Your task to perform on an android device: Open the stopwatch Image 0: 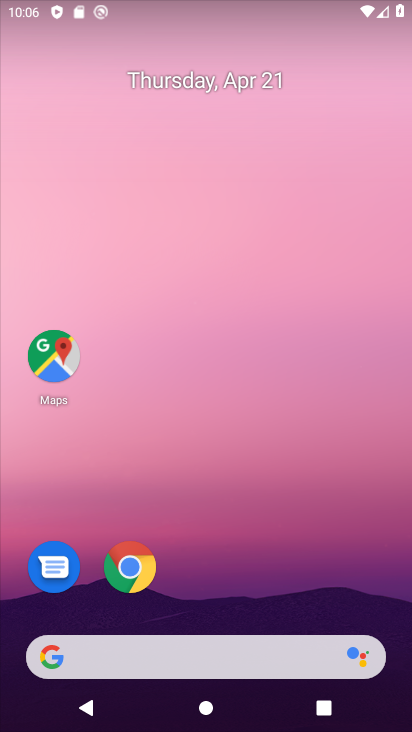
Step 0: drag from (218, 584) to (241, 159)
Your task to perform on an android device: Open the stopwatch Image 1: 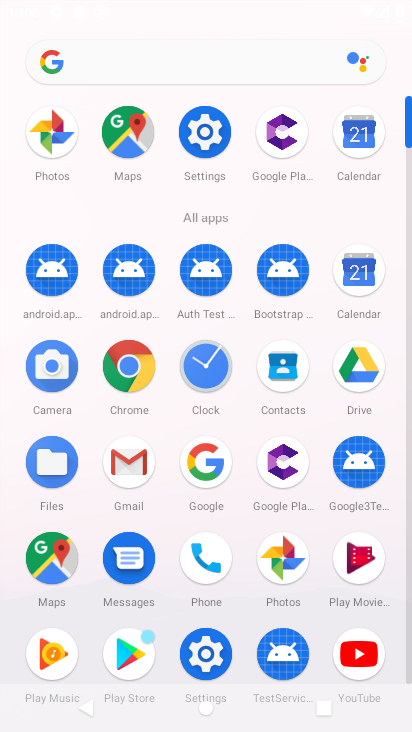
Step 1: click (204, 369)
Your task to perform on an android device: Open the stopwatch Image 2: 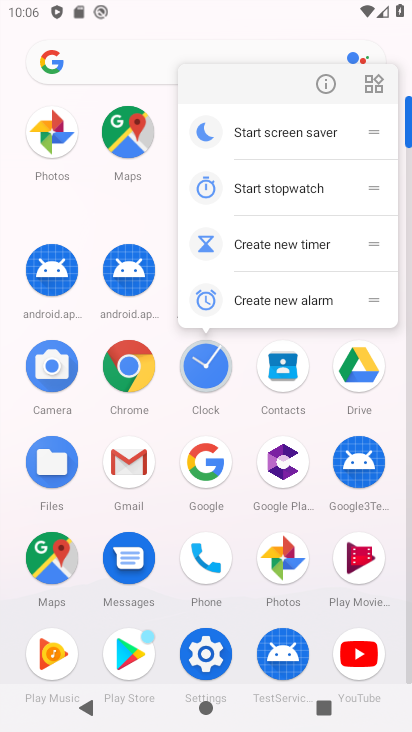
Step 2: click (204, 369)
Your task to perform on an android device: Open the stopwatch Image 3: 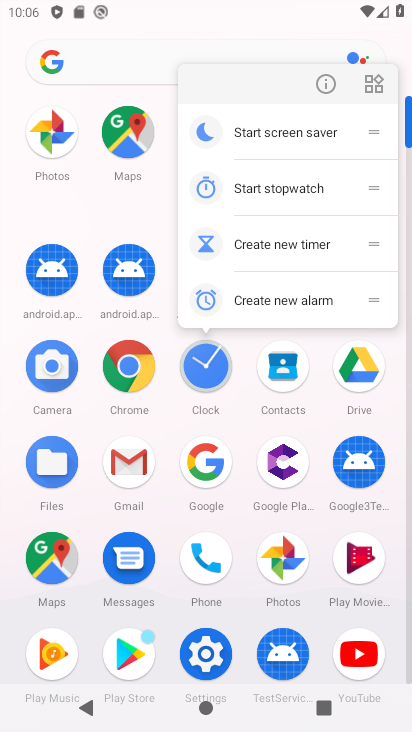
Step 3: click (204, 369)
Your task to perform on an android device: Open the stopwatch Image 4: 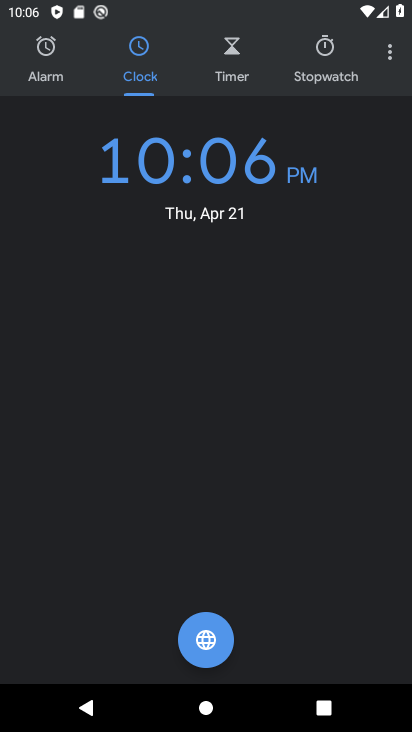
Step 4: click (337, 70)
Your task to perform on an android device: Open the stopwatch Image 5: 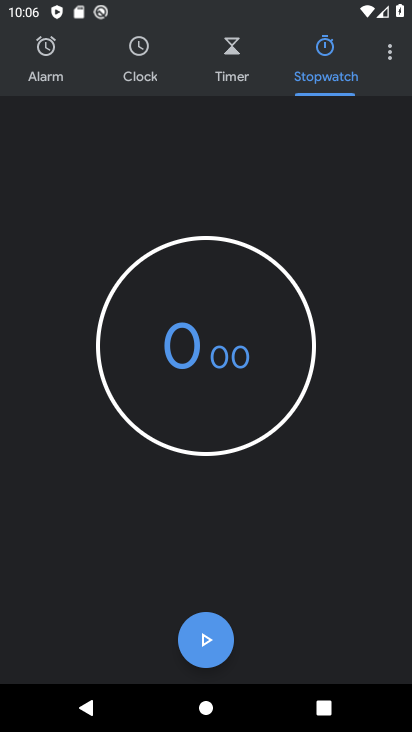
Step 5: click (213, 625)
Your task to perform on an android device: Open the stopwatch Image 6: 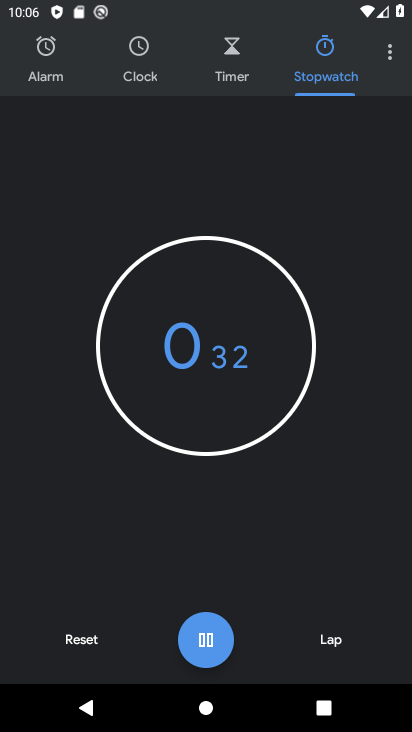
Step 6: task complete